Your task to perform on an android device: change the clock display to digital Image 0: 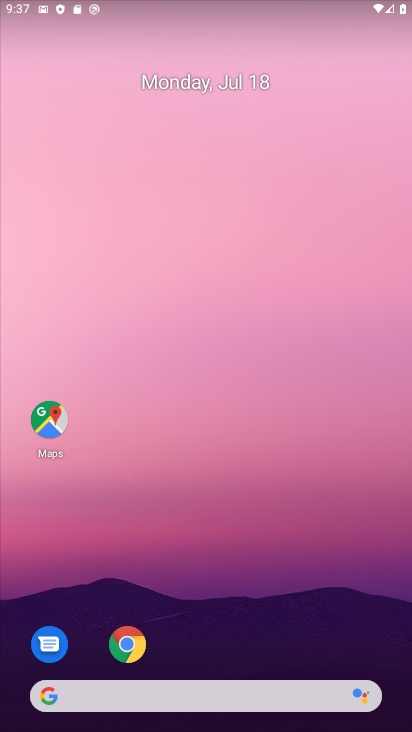
Step 0: drag from (289, 606) to (289, 245)
Your task to perform on an android device: change the clock display to digital Image 1: 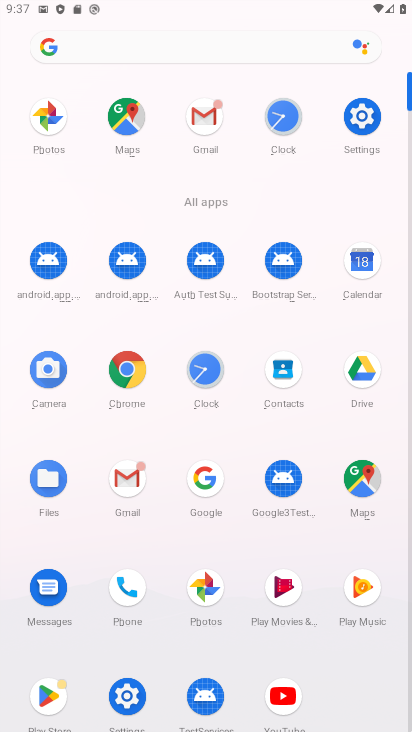
Step 1: click (280, 121)
Your task to perform on an android device: change the clock display to digital Image 2: 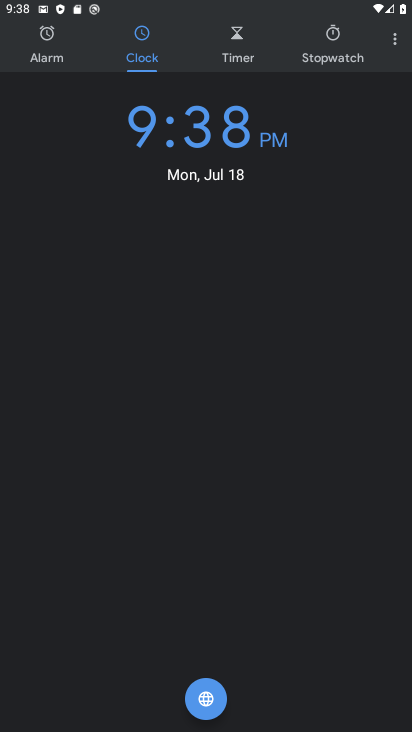
Step 2: click (392, 43)
Your task to perform on an android device: change the clock display to digital Image 3: 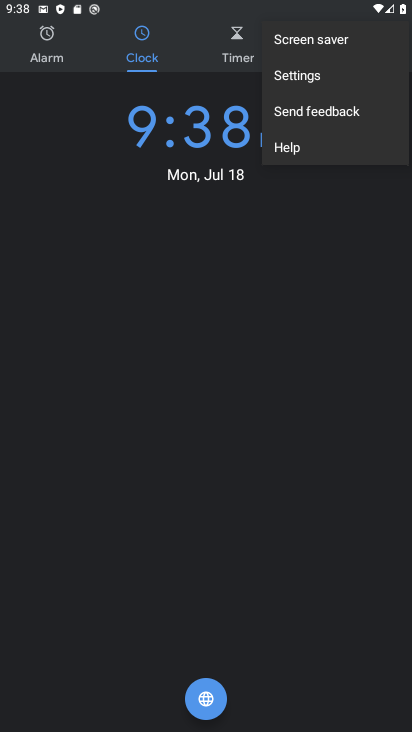
Step 3: click (299, 71)
Your task to perform on an android device: change the clock display to digital Image 4: 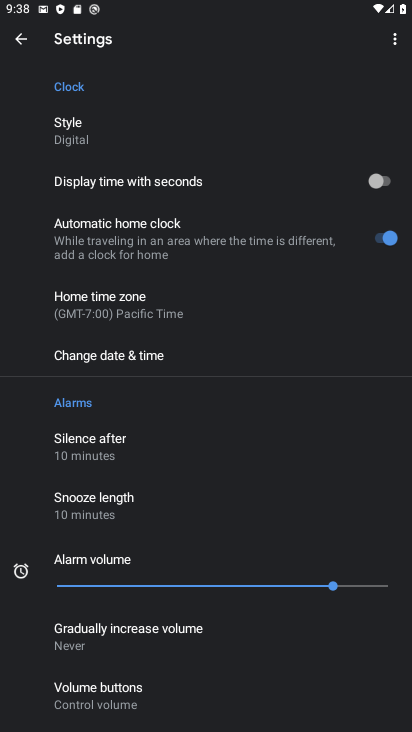
Step 4: click (79, 148)
Your task to perform on an android device: change the clock display to digital Image 5: 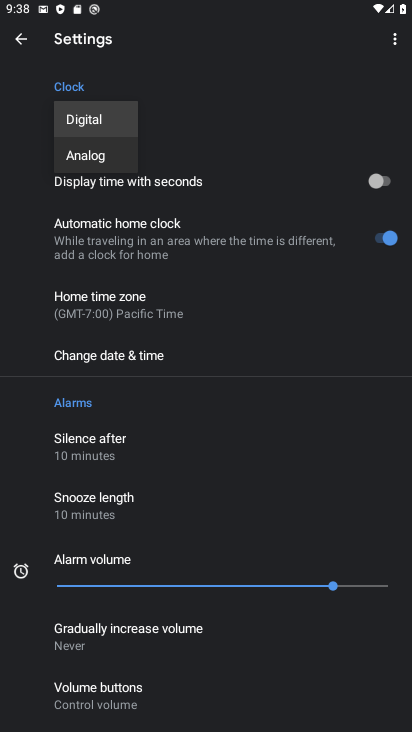
Step 5: click (99, 114)
Your task to perform on an android device: change the clock display to digital Image 6: 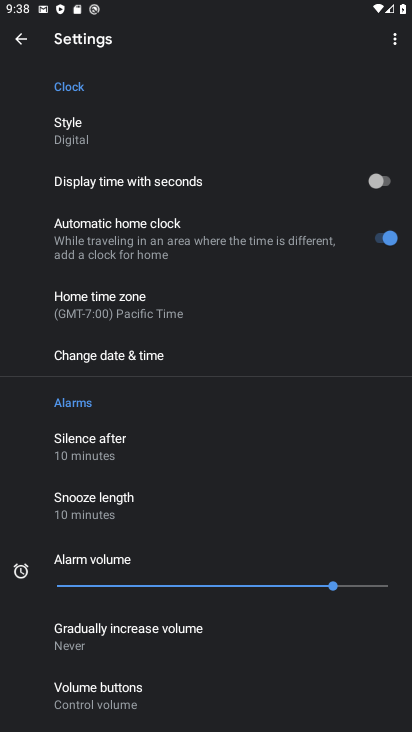
Step 6: task complete